Your task to perform on an android device: check data usage Image 0: 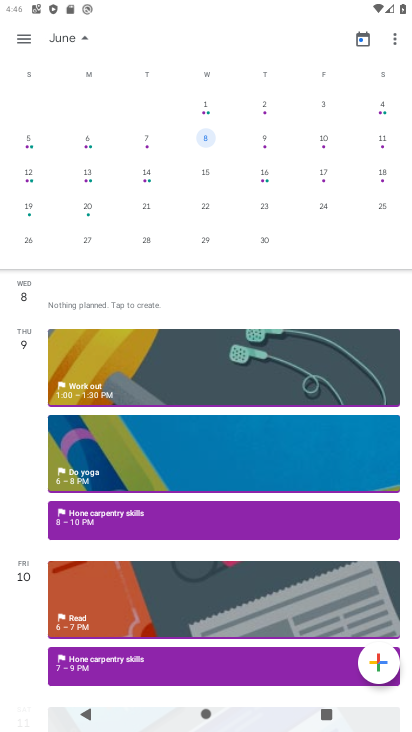
Step 0: press home button
Your task to perform on an android device: check data usage Image 1: 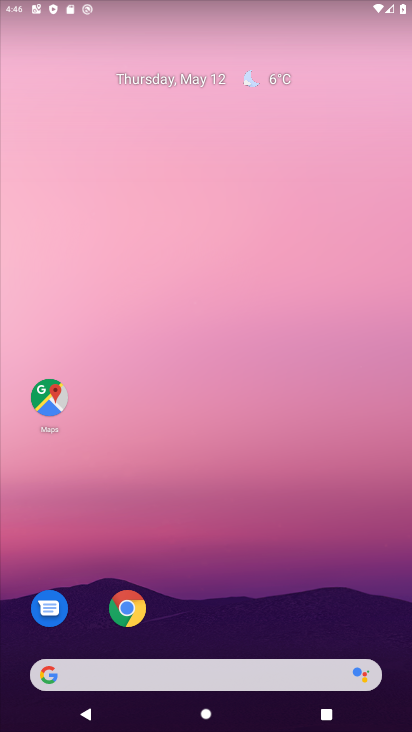
Step 1: drag from (248, 10) to (178, 645)
Your task to perform on an android device: check data usage Image 2: 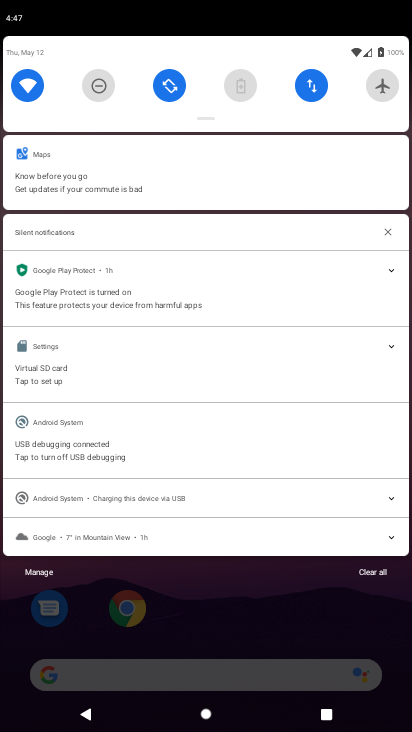
Step 2: click (317, 88)
Your task to perform on an android device: check data usage Image 3: 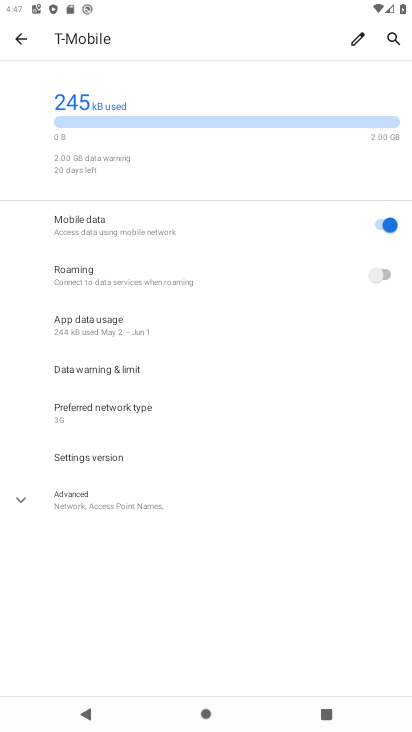
Step 3: task complete